Your task to perform on an android device: Open Google Image 0: 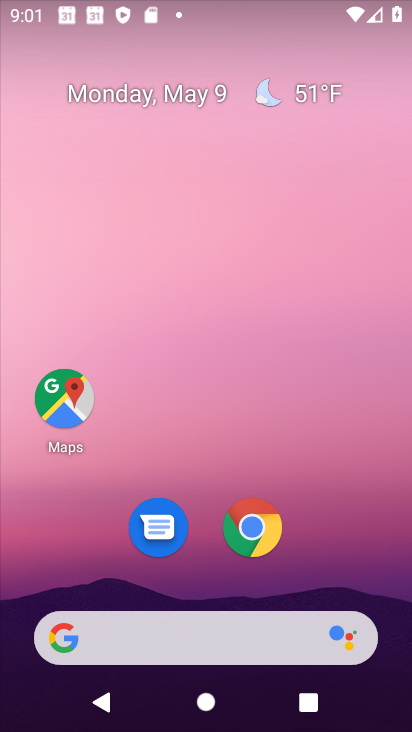
Step 0: click (174, 632)
Your task to perform on an android device: Open Google Image 1: 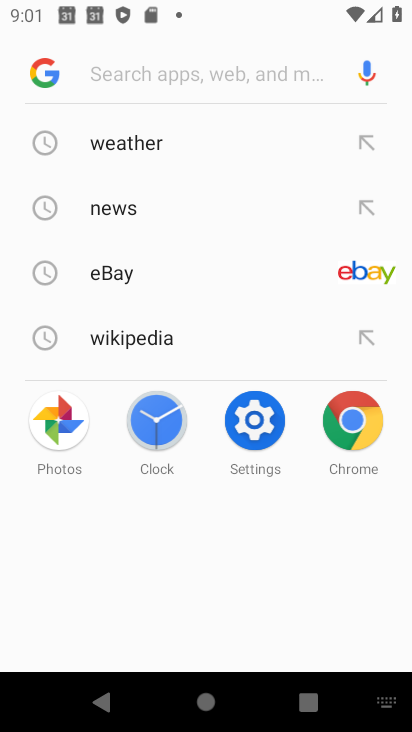
Step 1: click (39, 80)
Your task to perform on an android device: Open Google Image 2: 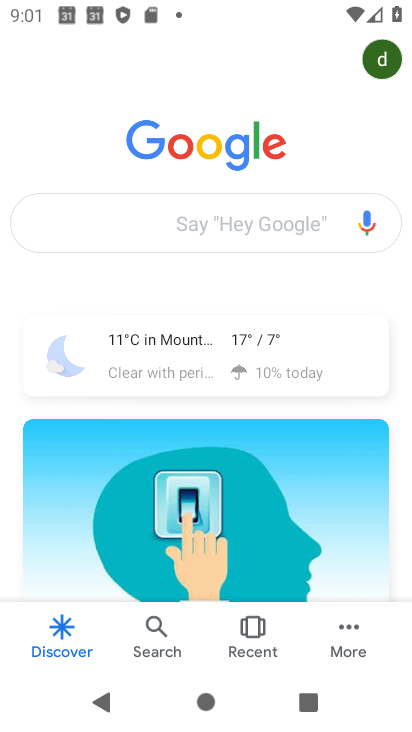
Step 2: task complete